Your task to perform on an android device: toggle location history Image 0: 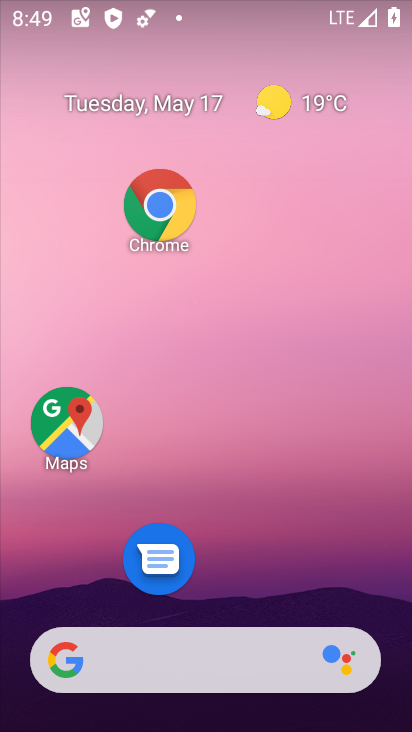
Step 0: drag from (255, 505) to (322, 6)
Your task to perform on an android device: toggle location history Image 1: 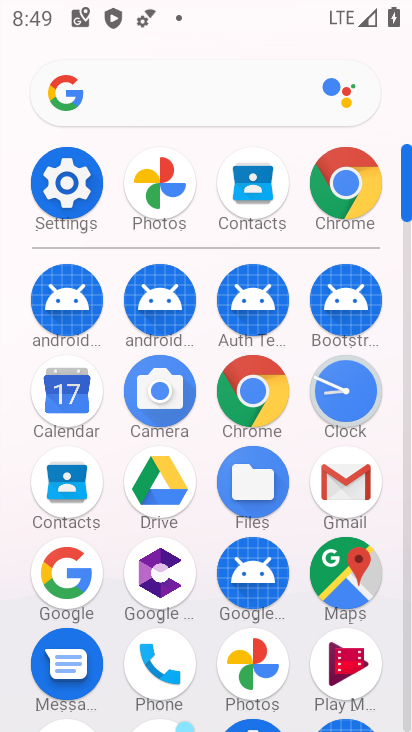
Step 1: click (58, 188)
Your task to perform on an android device: toggle location history Image 2: 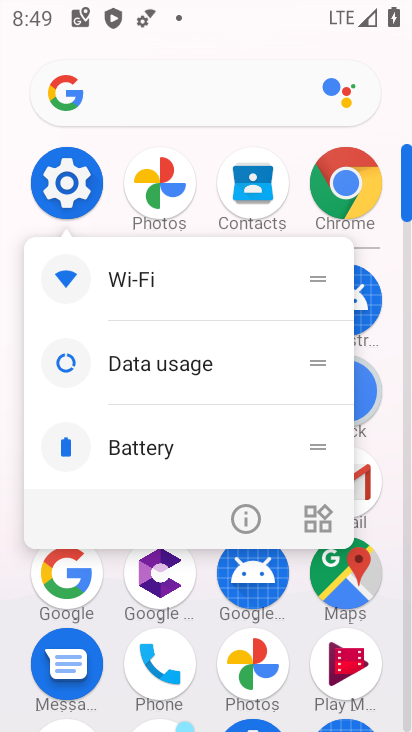
Step 2: click (233, 525)
Your task to perform on an android device: toggle location history Image 3: 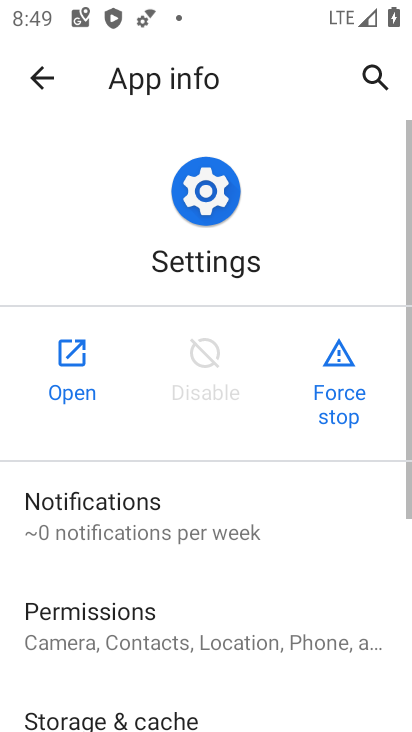
Step 3: click (69, 375)
Your task to perform on an android device: toggle location history Image 4: 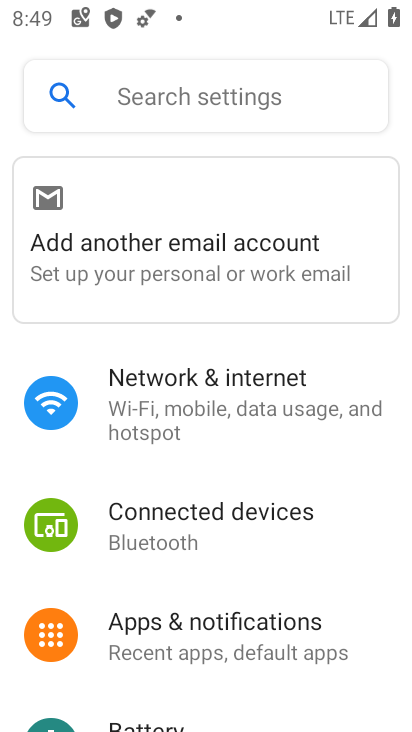
Step 4: drag from (212, 545) to (200, 187)
Your task to perform on an android device: toggle location history Image 5: 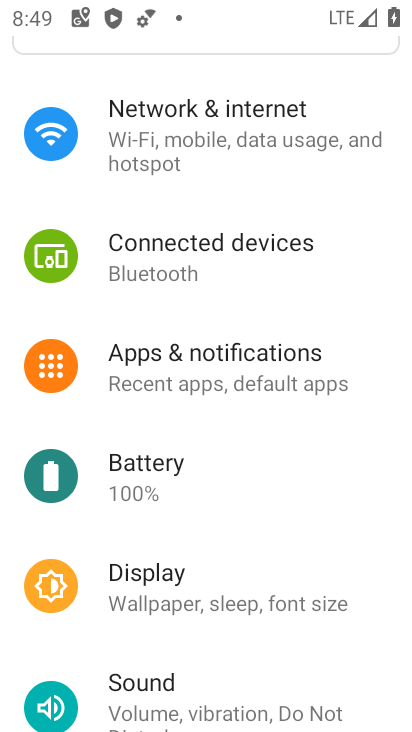
Step 5: drag from (191, 621) to (133, 202)
Your task to perform on an android device: toggle location history Image 6: 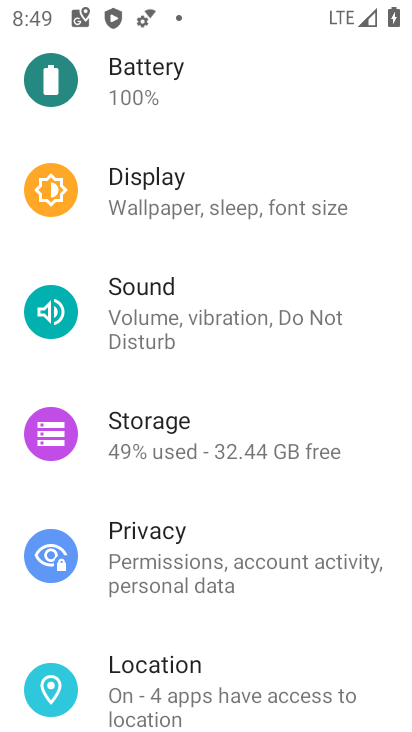
Step 6: click (198, 650)
Your task to perform on an android device: toggle location history Image 7: 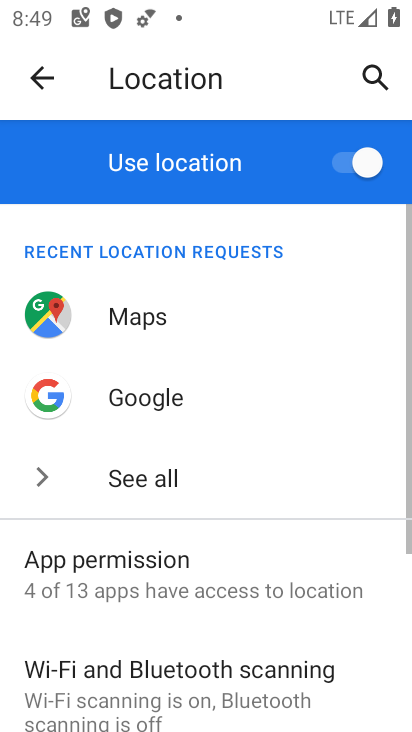
Step 7: drag from (156, 619) to (136, 235)
Your task to perform on an android device: toggle location history Image 8: 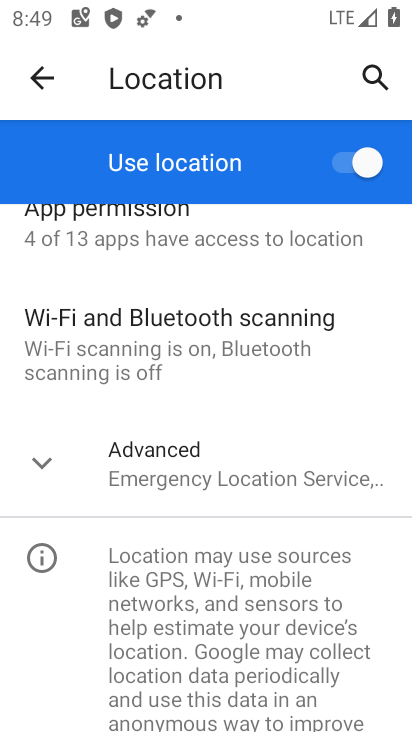
Step 8: click (151, 483)
Your task to perform on an android device: toggle location history Image 9: 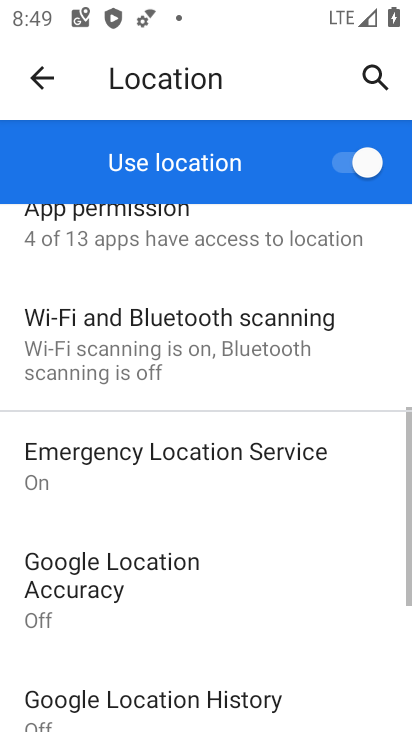
Step 9: drag from (188, 605) to (224, 263)
Your task to perform on an android device: toggle location history Image 10: 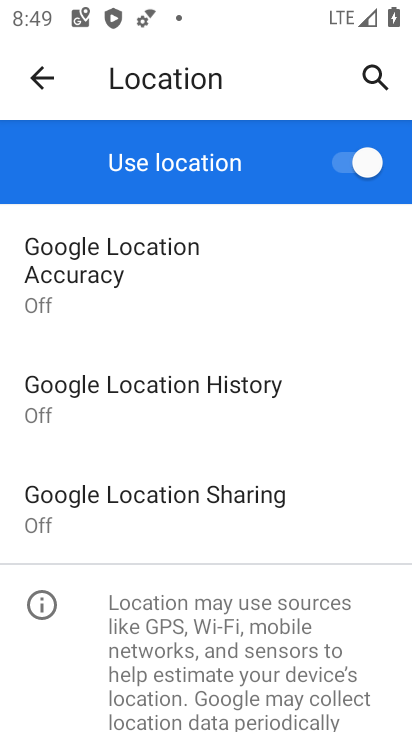
Step 10: click (171, 413)
Your task to perform on an android device: toggle location history Image 11: 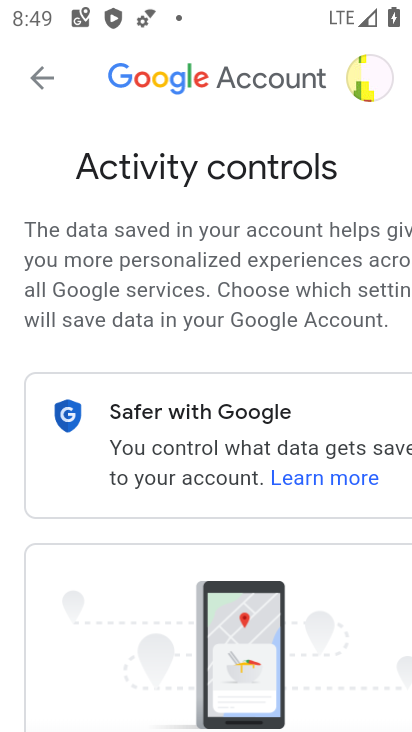
Step 11: drag from (268, 540) to (195, 0)
Your task to perform on an android device: toggle location history Image 12: 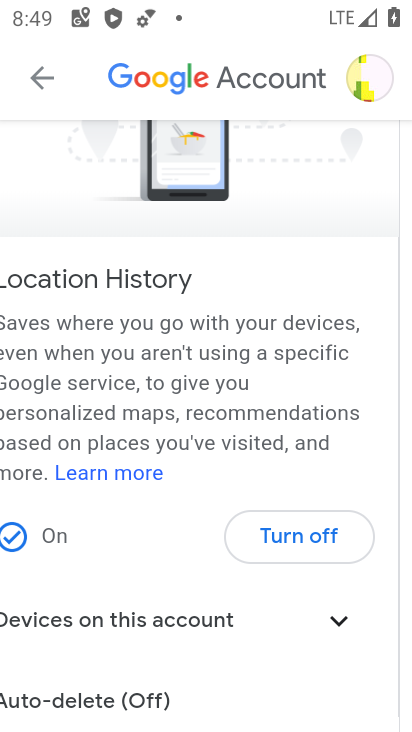
Step 12: click (277, 537)
Your task to perform on an android device: toggle location history Image 13: 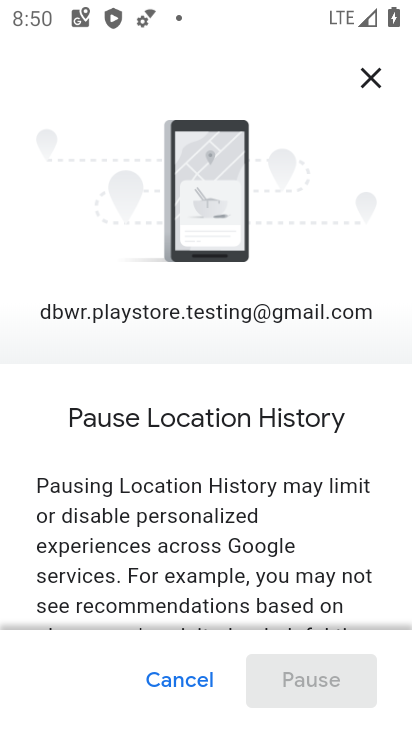
Step 13: drag from (254, 583) to (297, 18)
Your task to perform on an android device: toggle location history Image 14: 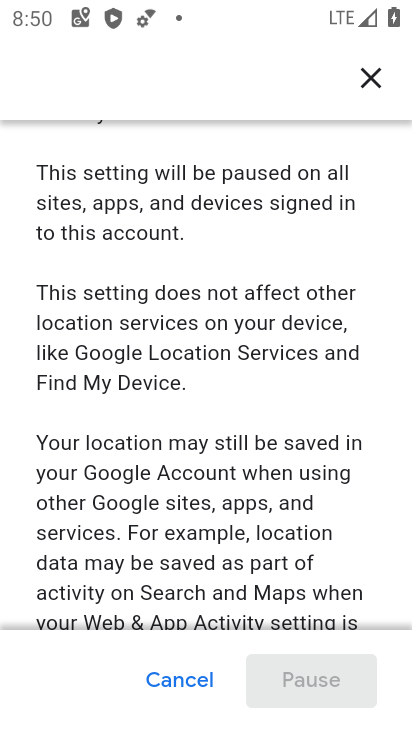
Step 14: drag from (260, 601) to (265, 17)
Your task to perform on an android device: toggle location history Image 15: 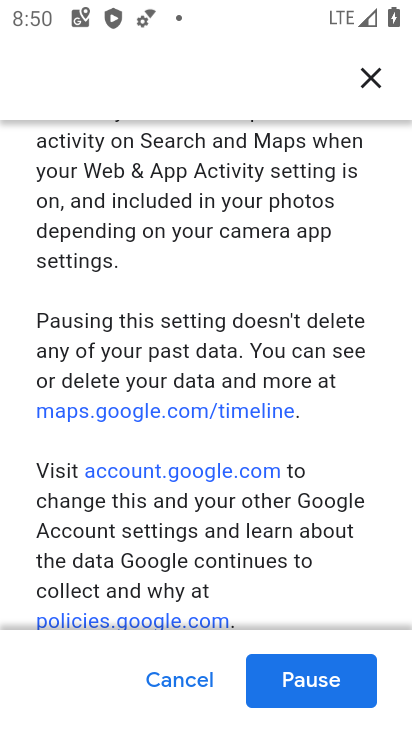
Step 15: click (302, 659)
Your task to perform on an android device: toggle location history Image 16: 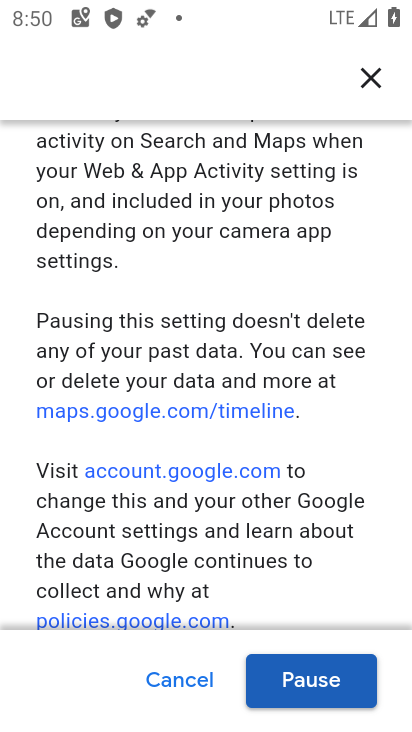
Step 16: click (310, 648)
Your task to perform on an android device: toggle location history Image 17: 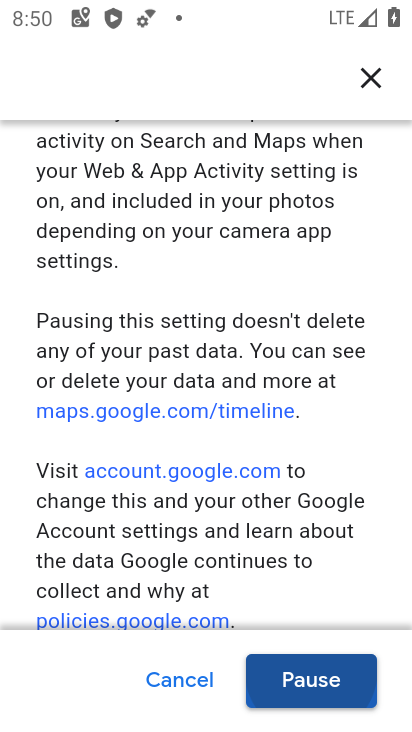
Step 17: click (312, 658)
Your task to perform on an android device: toggle location history Image 18: 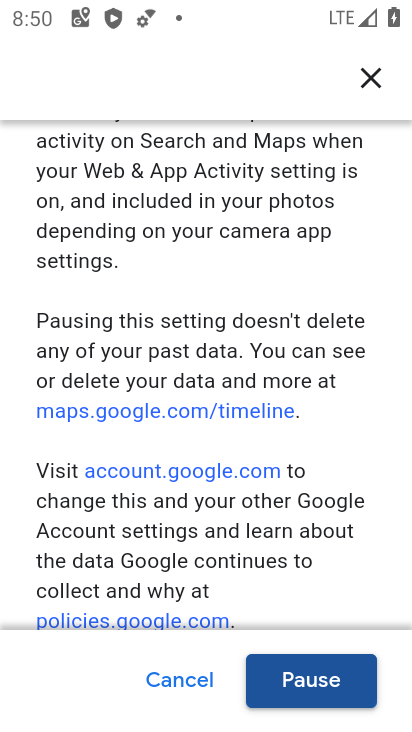
Step 18: drag from (292, 444) to (307, 2)
Your task to perform on an android device: toggle location history Image 19: 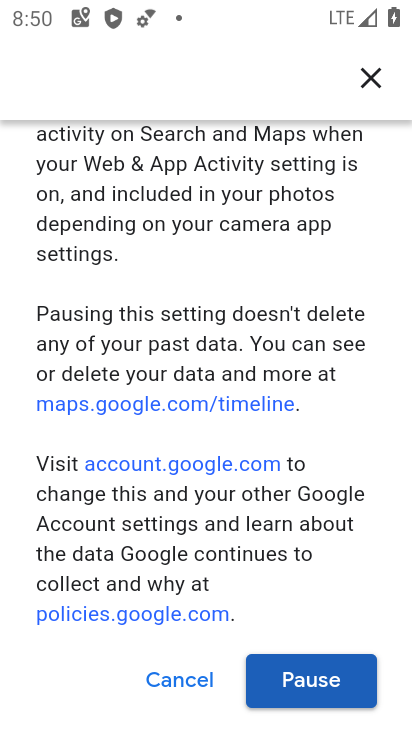
Step 19: drag from (236, 585) to (260, 178)
Your task to perform on an android device: toggle location history Image 20: 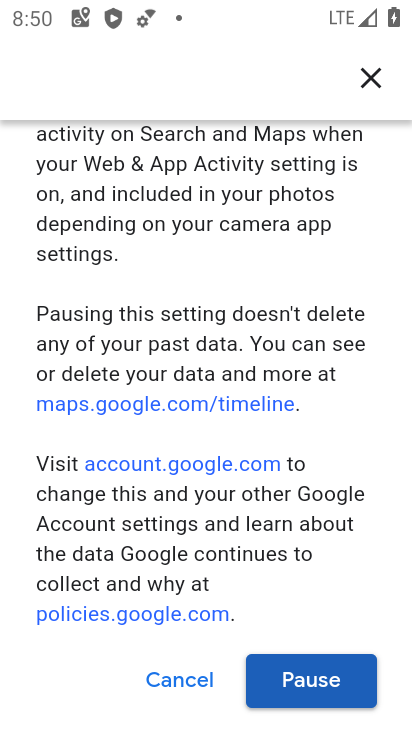
Step 20: click (277, 685)
Your task to perform on an android device: toggle location history Image 21: 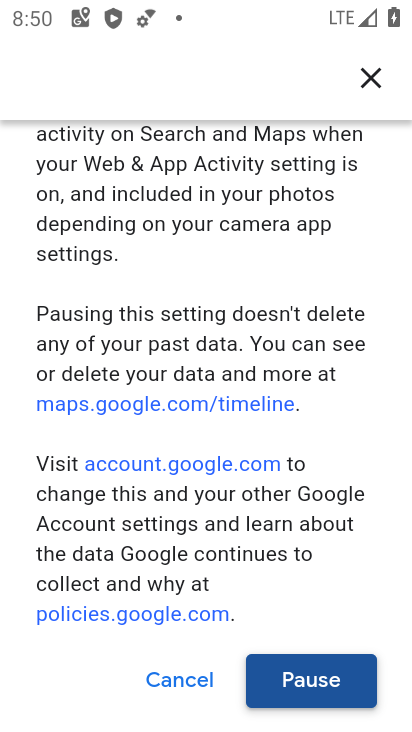
Step 21: task complete